Your task to perform on an android device: turn pop-ups off in chrome Image 0: 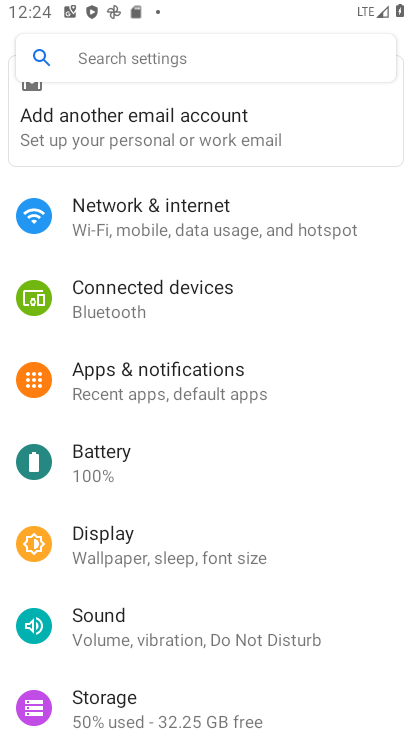
Step 0: press home button
Your task to perform on an android device: turn pop-ups off in chrome Image 1: 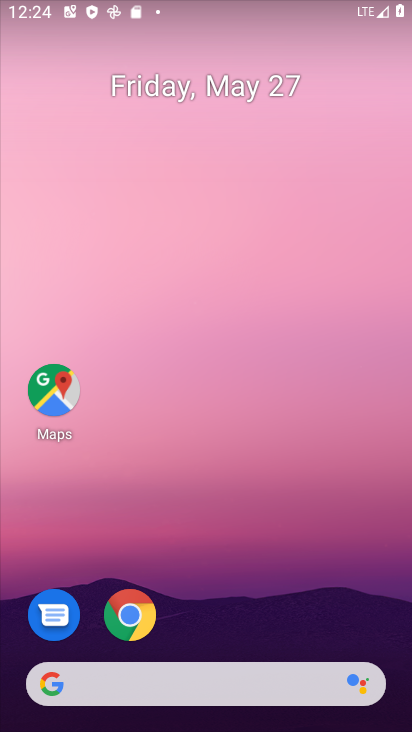
Step 1: drag from (192, 663) to (266, 1)
Your task to perform on an android device: turn pop-ups off in chrome Image 2: 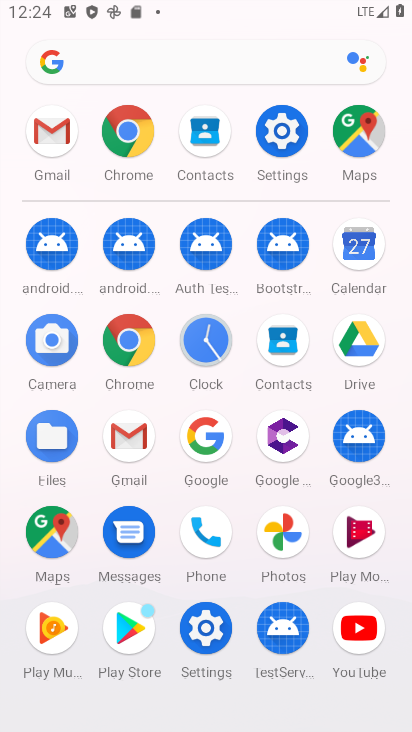
Step 2: click (116, 325)
Your task to perform on an android device: turn pop-ups off in chrome Image 3: 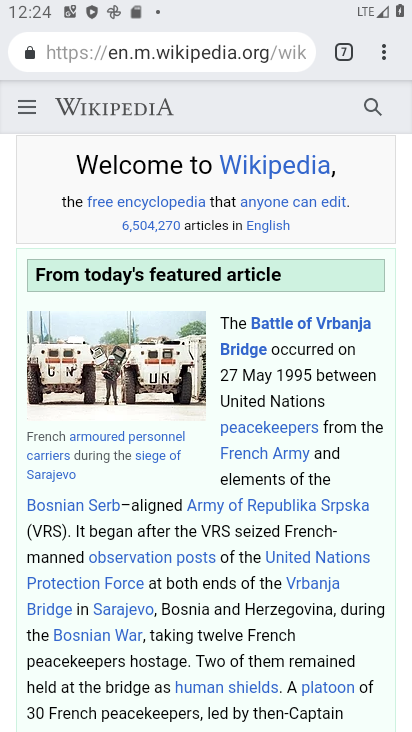
Step 3: drag from (386, 53) to (220, 631)
Your task to perform on an android device: turn pop-ups off in chrome Image 4: 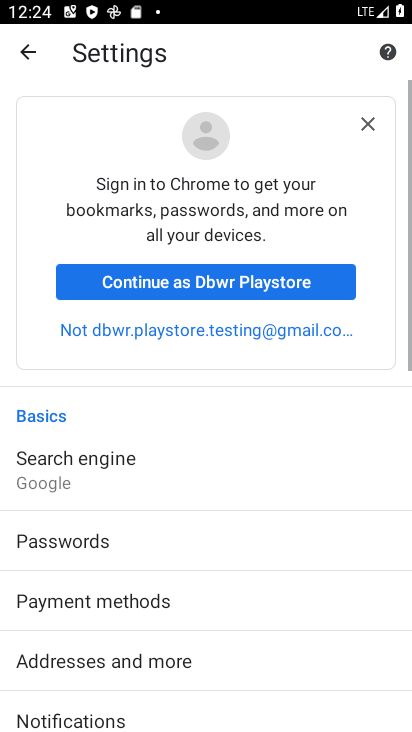
Step 4: drag from (208, 623) to (222, 71)
Your task to perform on an android device: turn pop-ups off in chrome Image 5: 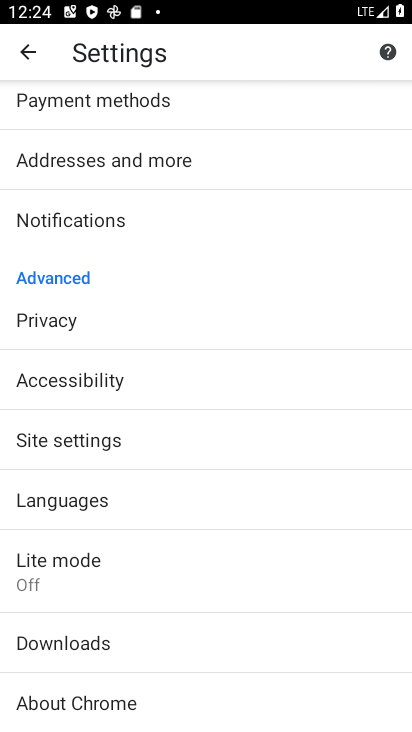
Step 5: click (126, 444)
Your task to perform on an android device: turn pop-ups off in chrome Image 6: 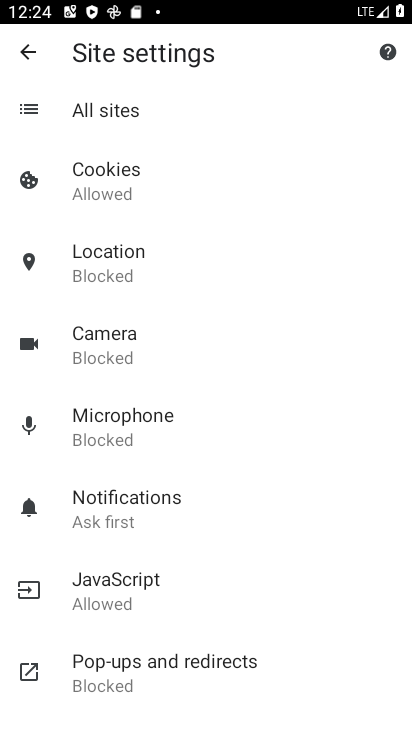
Step 6: click (165, 656)
Your task to perform on an android device: turn pop-ups off in chrome Image 7: 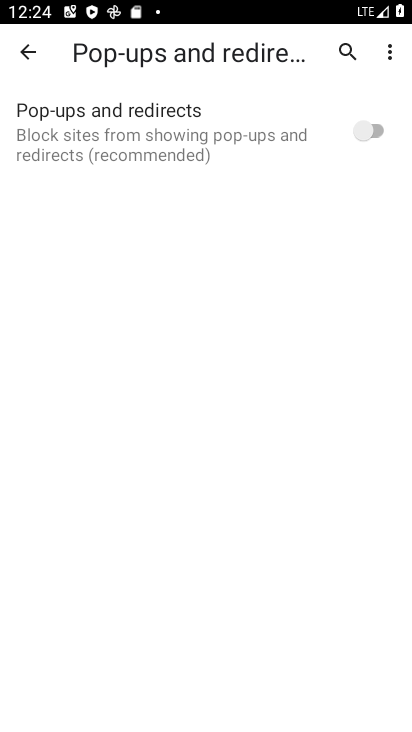
Step 7: task complete